Your task to perform on an android device: Search for seafood restaurants on Google Maps Image 0: 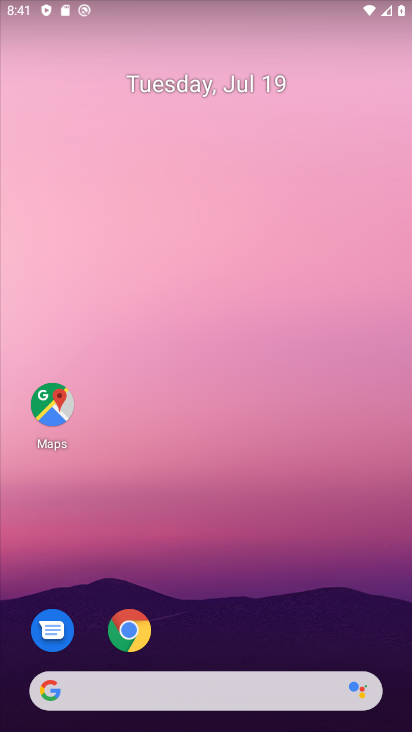
Step 0: drag from (276, 312) to (284, 95)
Your task to perform on an android device: Search for seafood restaurants on Google Maps Image 1: 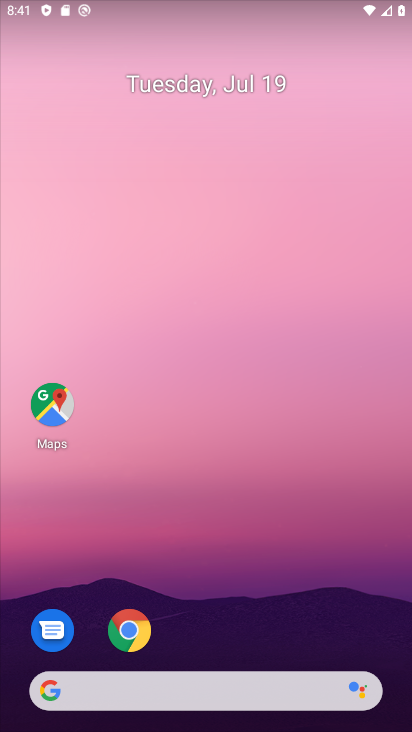
Step 1: click (55, 401)
Your task to perform on an android device: Search for seafood restaurants on Google Maps Image 2: 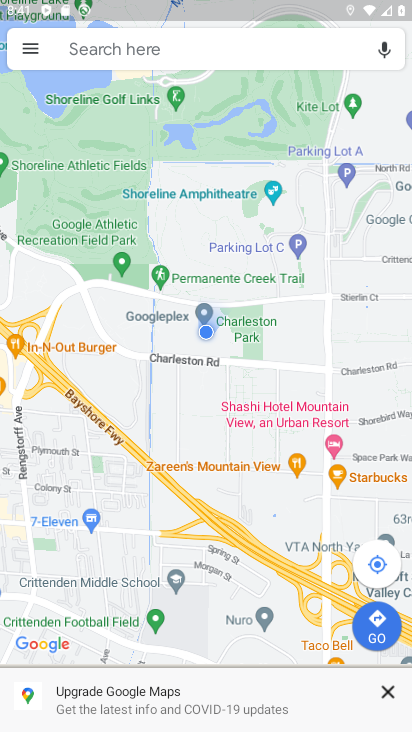
Step 2: click (156, 51)
Your task to perform on an android device: Search for seafood restaurants on Google Maps Image 3: 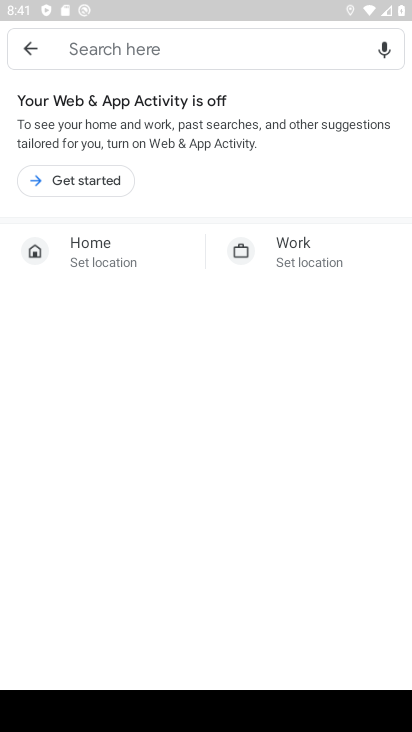
Step 3: click (89, 178)
Your task to perform on an android device: Search for seafood restaurants on Google Maps Image 4: 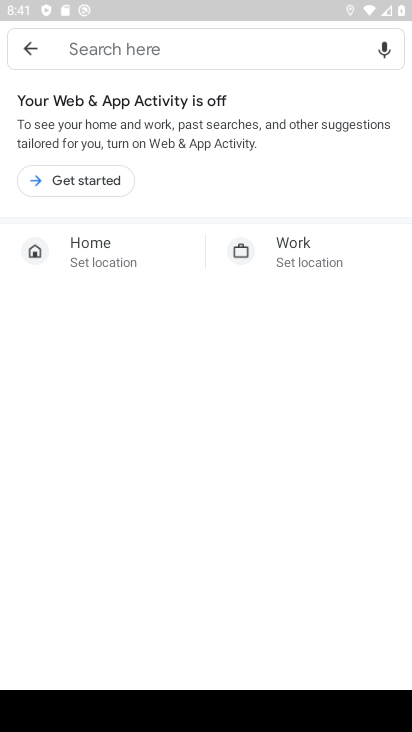
Step 4: click (75, 178)
Your task to perform on an android device: Search for seafood restaurants on Google Maps Image 5: 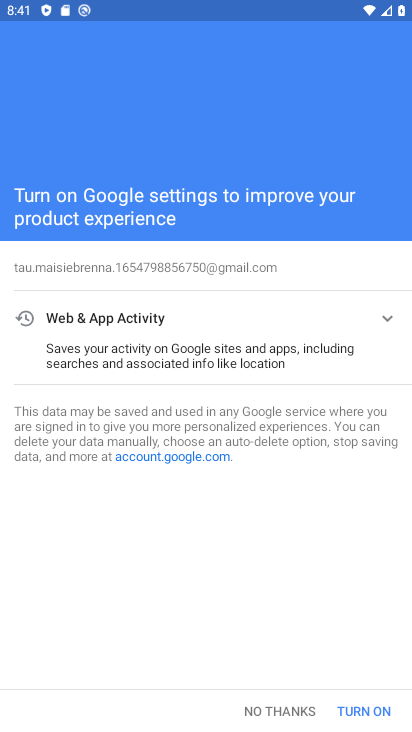
Step 5: click (279, 700)
Your task to perform on an android device: Search for seafood restaurants on Google Maps Image 6: 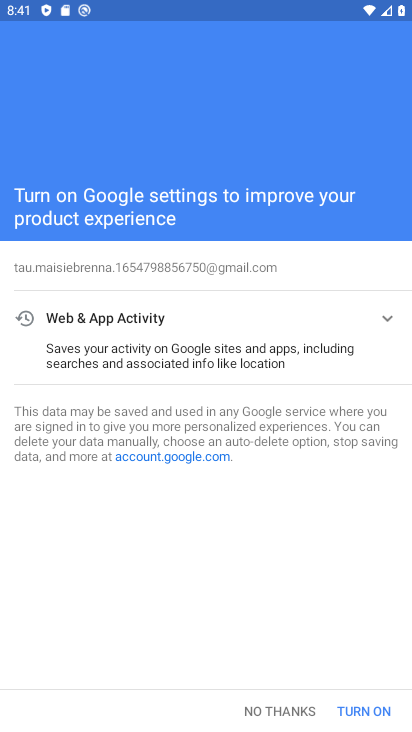
Step 6: click (285, 717)
Your task to perform on an android device: Search for seafood restaurants on Google Maps Image 7: 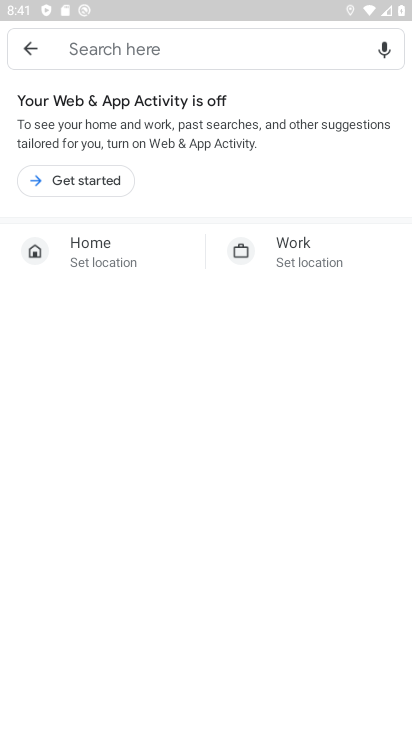
Step 7: click (136, 46)
Your task to perform on an android device: Search for seafood restaurants on Google Maps Image 8: 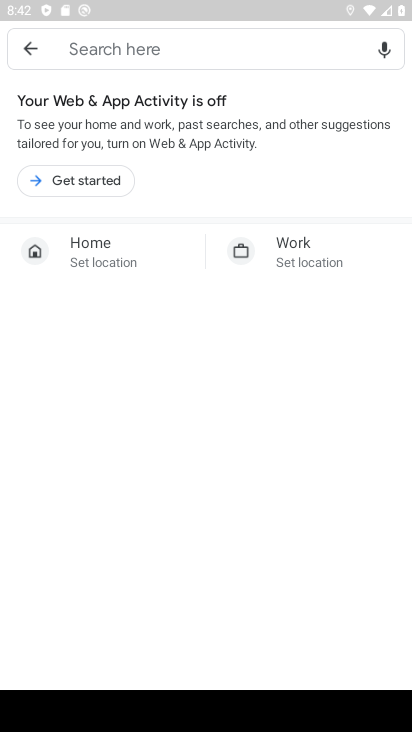
Step 8: type "seafood restaurents"
Your task to perform on an android device: Search for seafood restaurants on Google Maps Image 9: 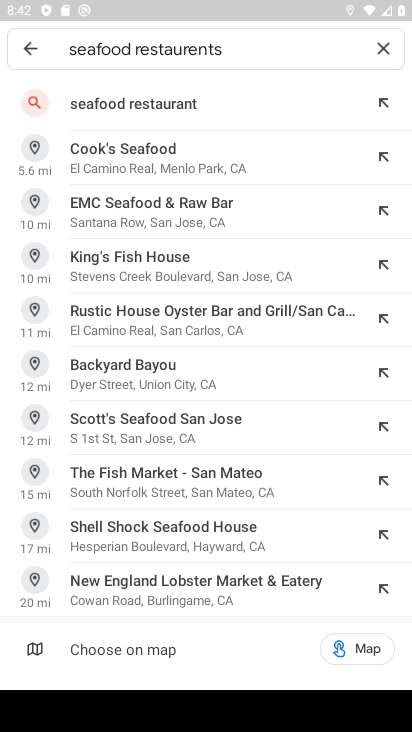
Step 9: click (136, 95)
Your task to perform on an android device: Search for seafood restaurants on Google Maps Image 10: 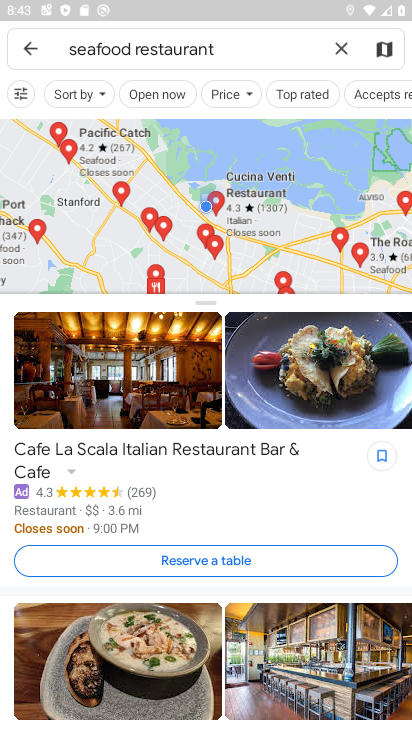
Step 10: task complete